Your task to perform on an android device: open wifi settings Image 0: 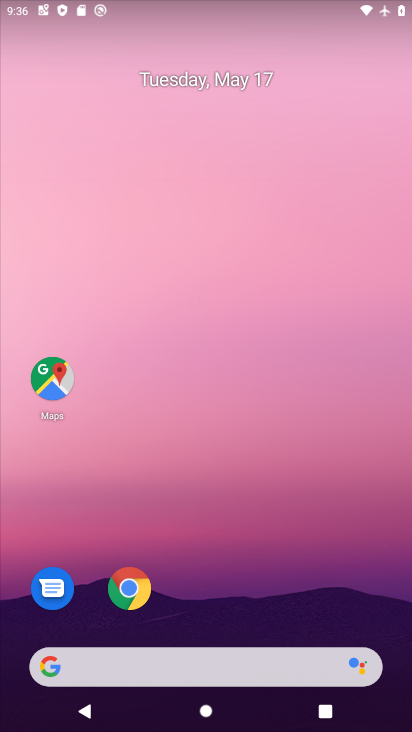
Step 0: drag from (215, 631) to (144, 80)
Your task to perform on an android device: open wifi settings Image 1: 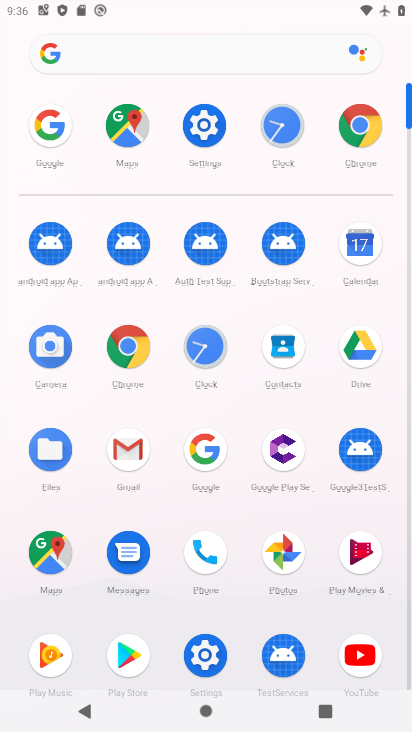
Step 1: click (202, 145)
Your task to perform on an android device: open wifi settings Image 2: 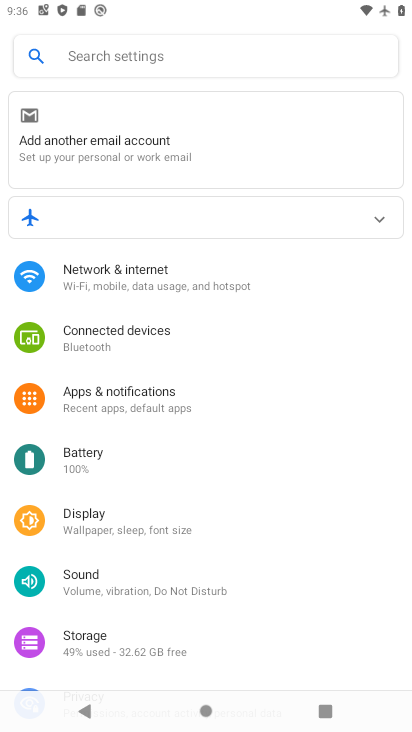
Step 2: click (107, 283)
Your task to perform on an android device: open wifi settings Image 3: 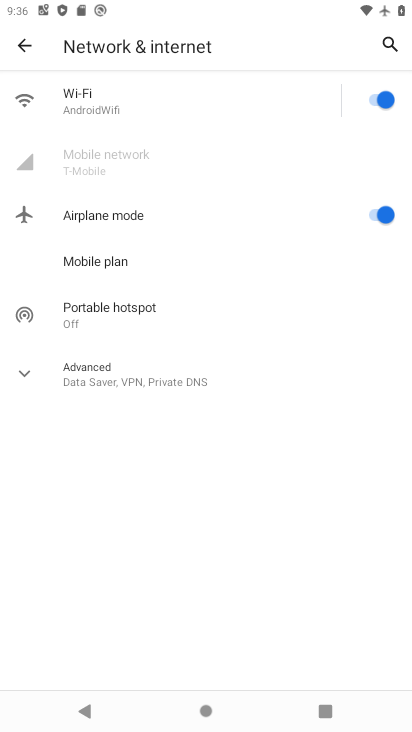
Step 3: click (142, 97)
Your task to perform on an android device: open wifi settings Image 4: 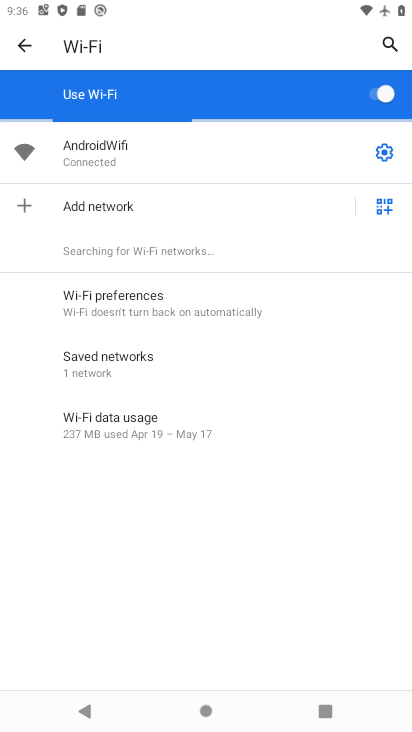
Step 4: task complete